Your task to perform on an android device: find snoozed emails in the gmail app Image 0: 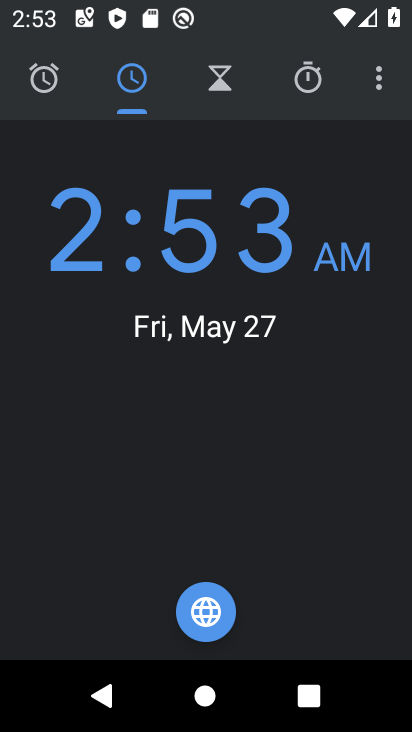
Step 0: press home button
Your task to perform on an android device: find snoozed emails in the gmail app Image 1: 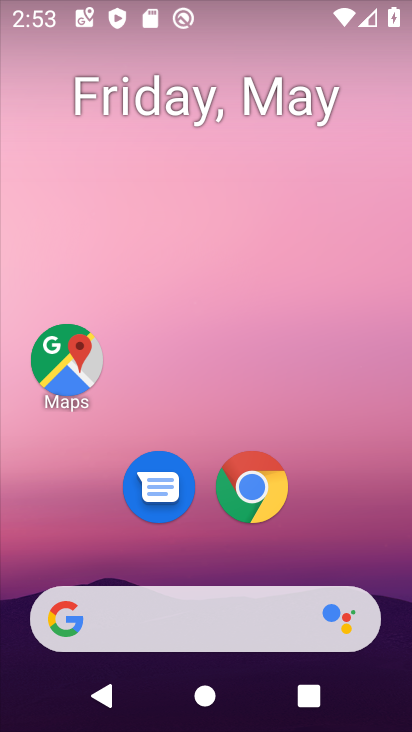
Step 1: drag from (91, 565) to (255, 168)
Your task to perform on an android device: find snoozed emails in the gmail app Image 2: 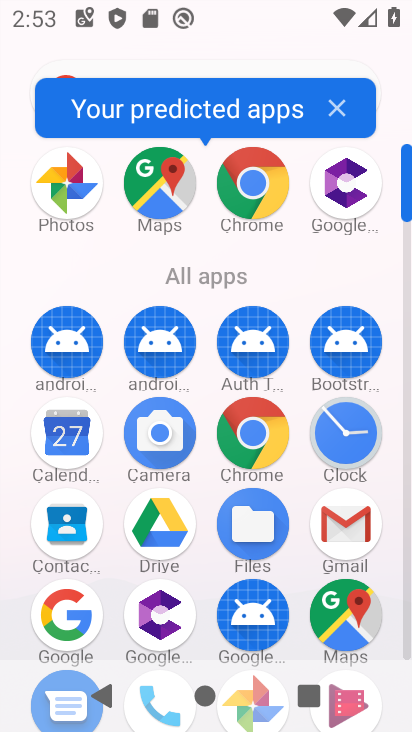
Step 2: drag from (226, 587) to (277, 446)
Your task to perform on an android device: find snoozed emails in the gmail app Image 3: 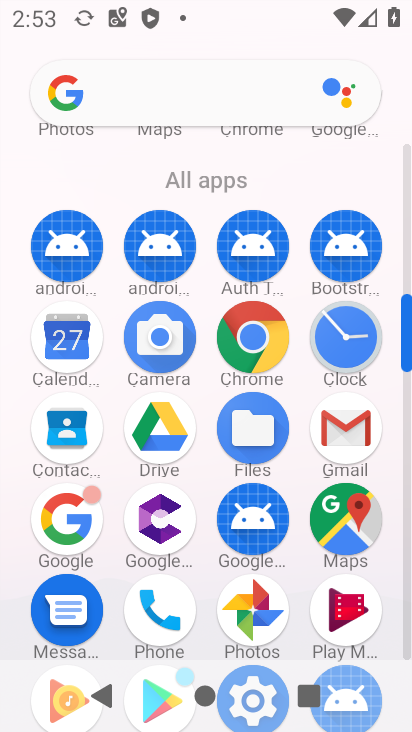
Step 3: click (359, 436)
Your task to perform on an android device: find snoozed emails in the gmail app Image 4: 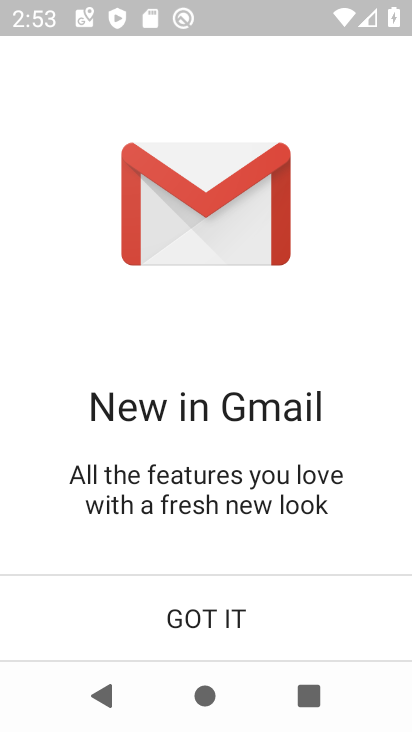
Step 4: click (228, 639)
Your task to perform on an android device: find snoozed emails in the gmail app Image 5: 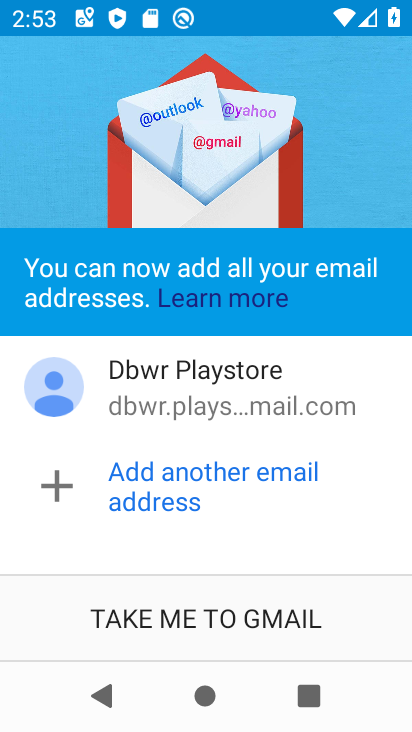
Step 5: click (228, 639)
Your task to perform on an android device: find snoozed emails in the gmail app Image 6: 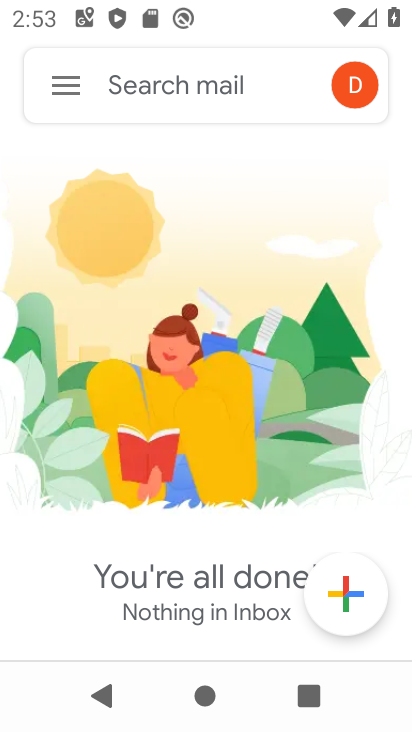
Step 6: click (68, 95)
Your task to perform on an android device: find snoozed emails in the gmail app Image 7: 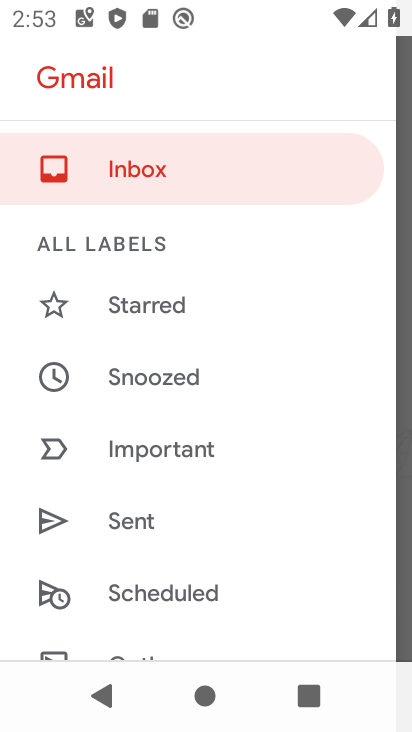
Step 7: drag from (105, 536) to (181, 370)
Your task to perform on an android device: find snoozed emails in the gmail app Image 8: 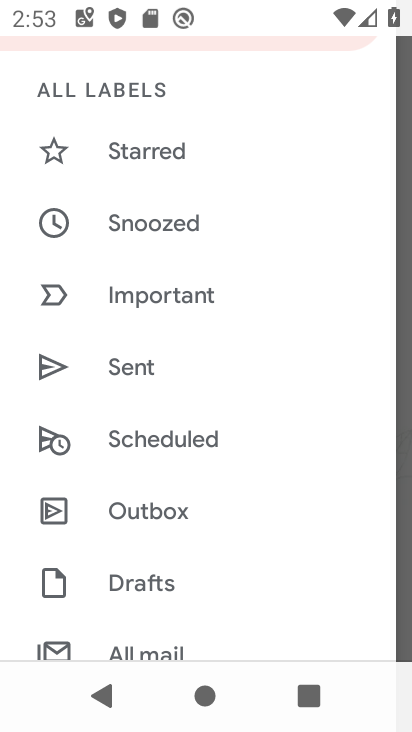
Step 8: click (205, 215)
Your task to perform on an android device: find snoozed emails in the gmail app Image 9: 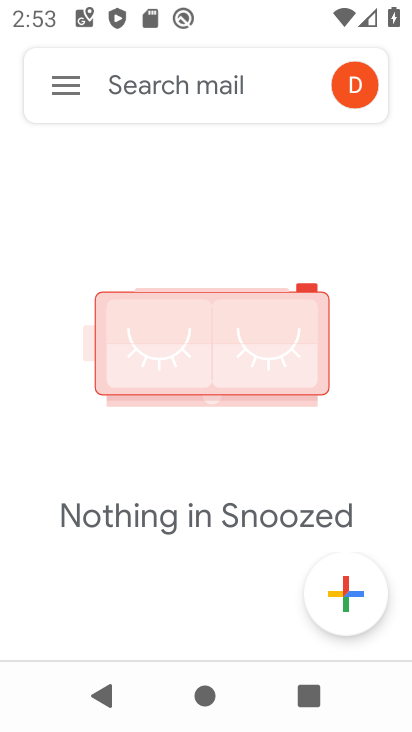
Step 9: task complete